Your task to perform on an android device: Open Youtube and go to "Your channel" Image 0: 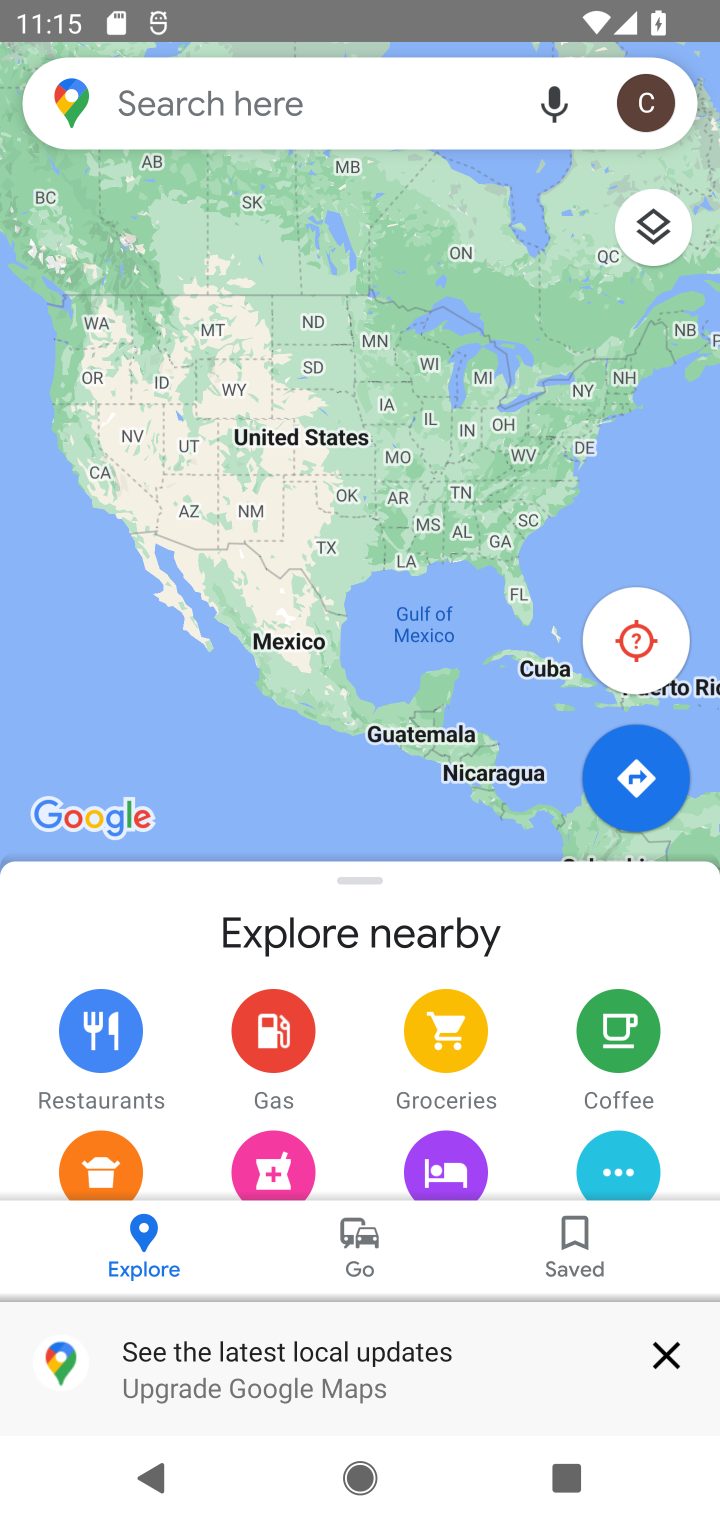
Step 0: press home button
Your task to perform on an android device: Open Youtube and go to "Your channel" Image 1: 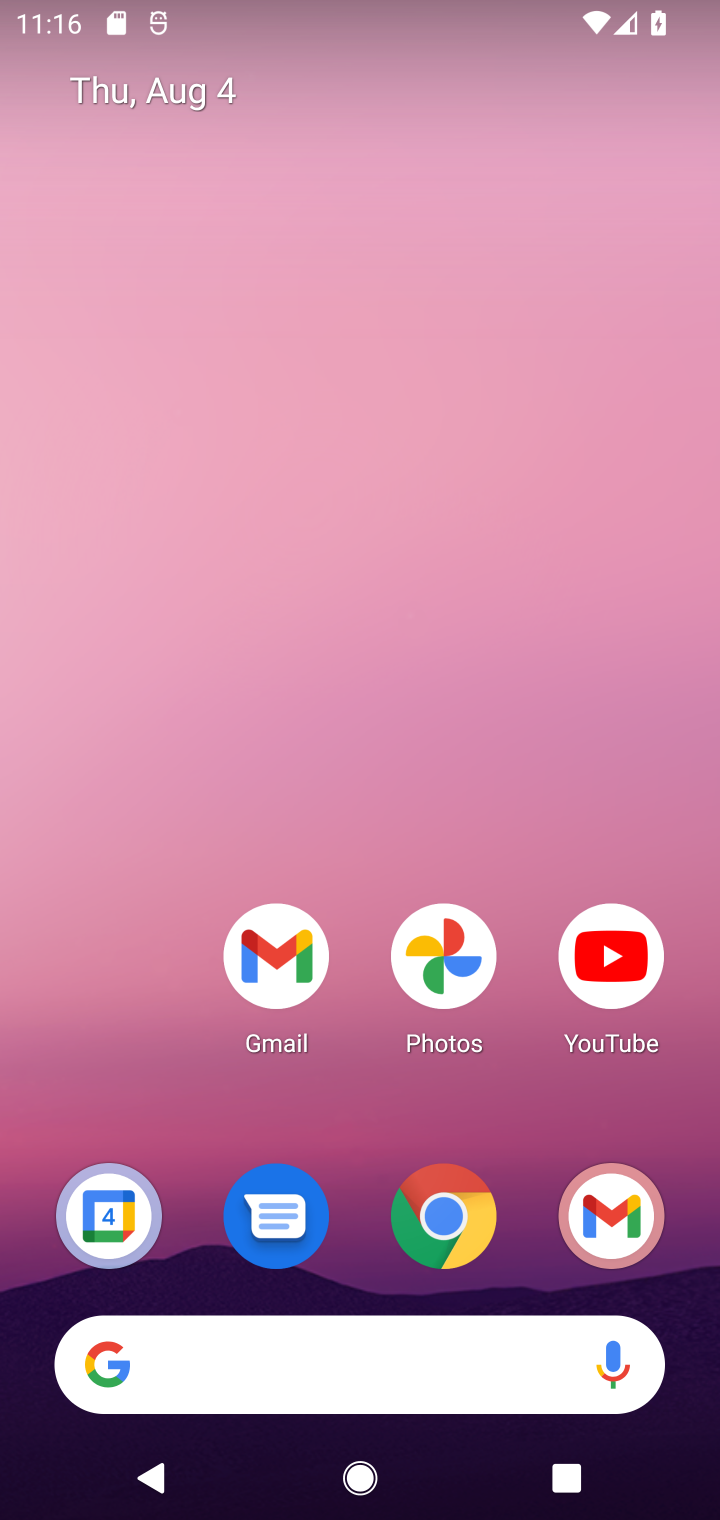
Step 1: click (610, 950)
Your task to perform on an android device: Open Youtube and go to "Your channel" Image 2: 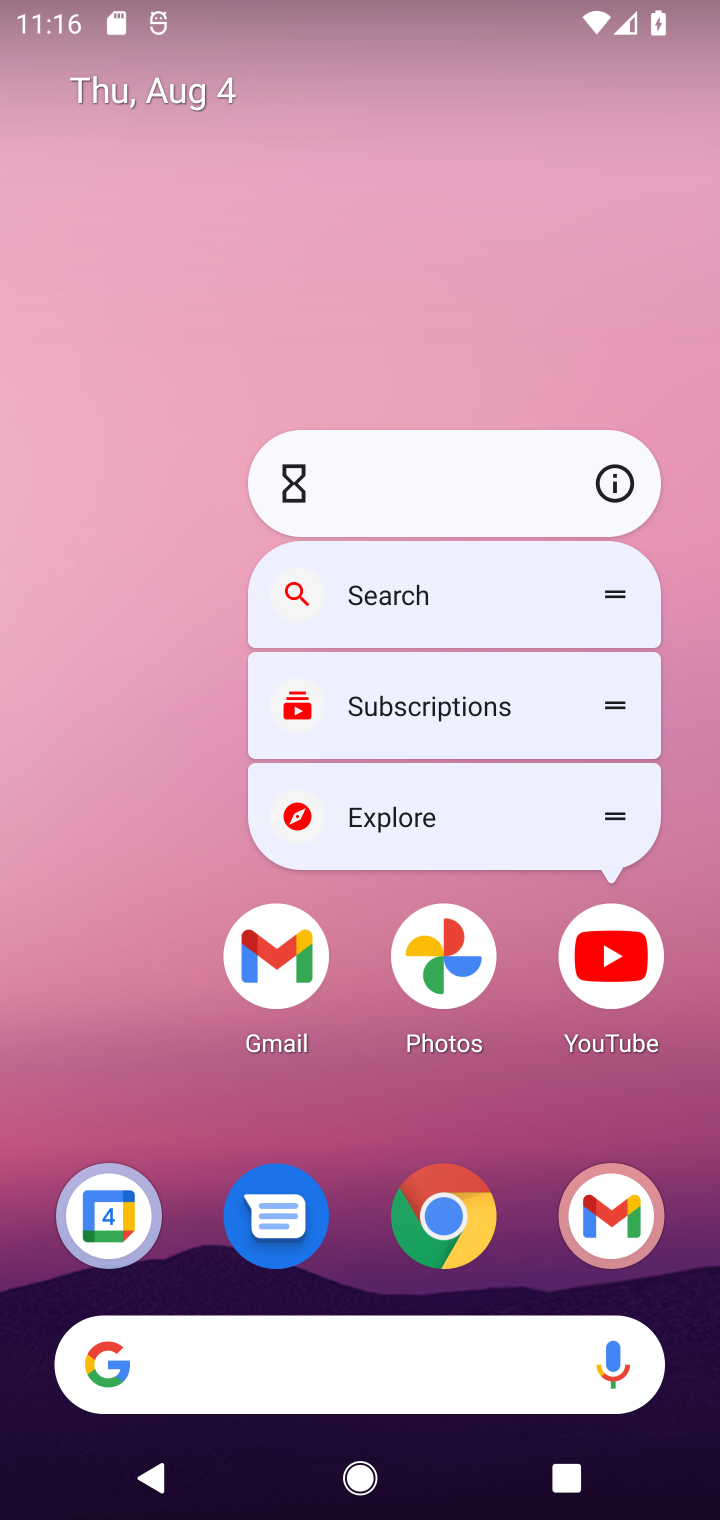
Step 2: click (610, 950)
Your task to perform on an android device: Open Youtube and go to "Your channel" Image 3: 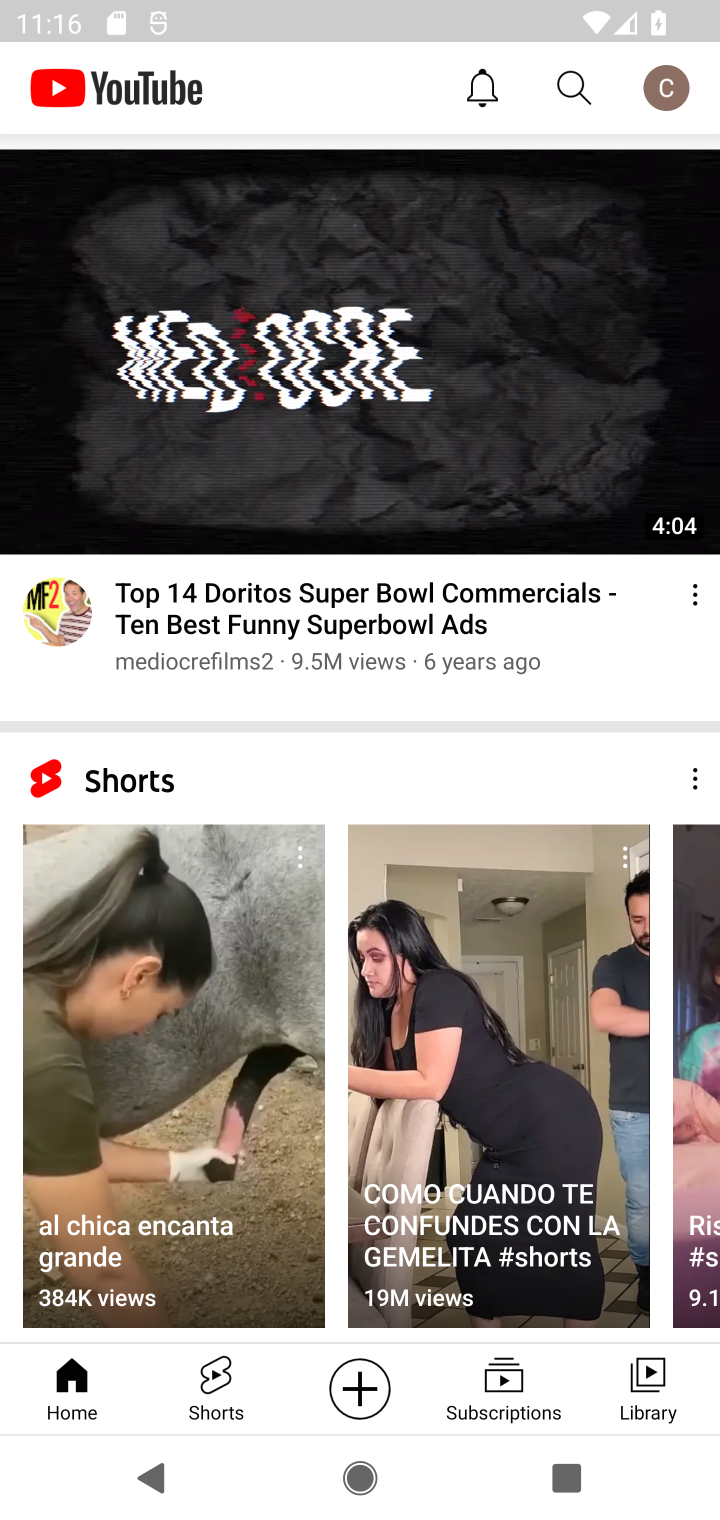
Step 3: click (655, 91)
Your task to perform on an android device: Open Youtube and go to "Your channel" Image 4: 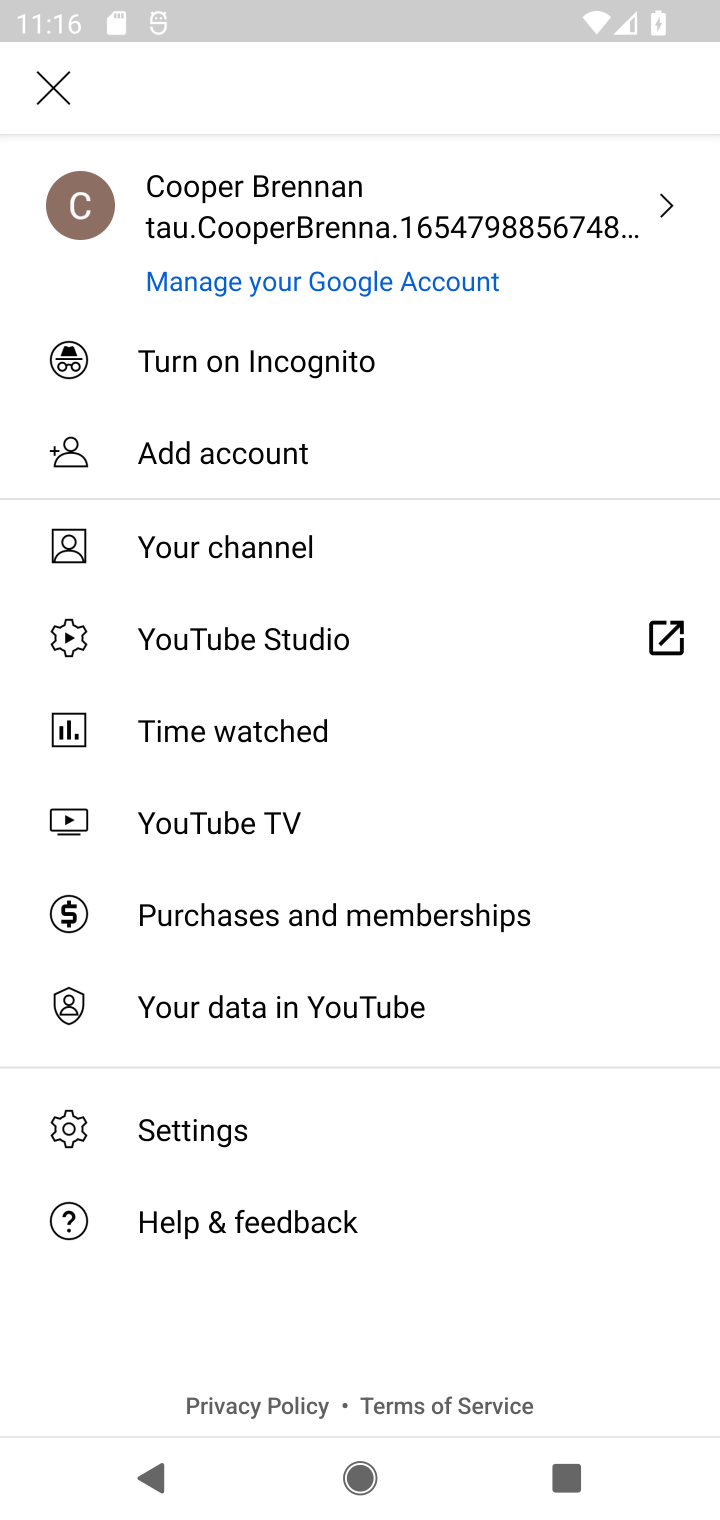
Step 4: click (286, 550)
Your task to perform on an android device: Open Youtube and go to "Your channel" Image 5: 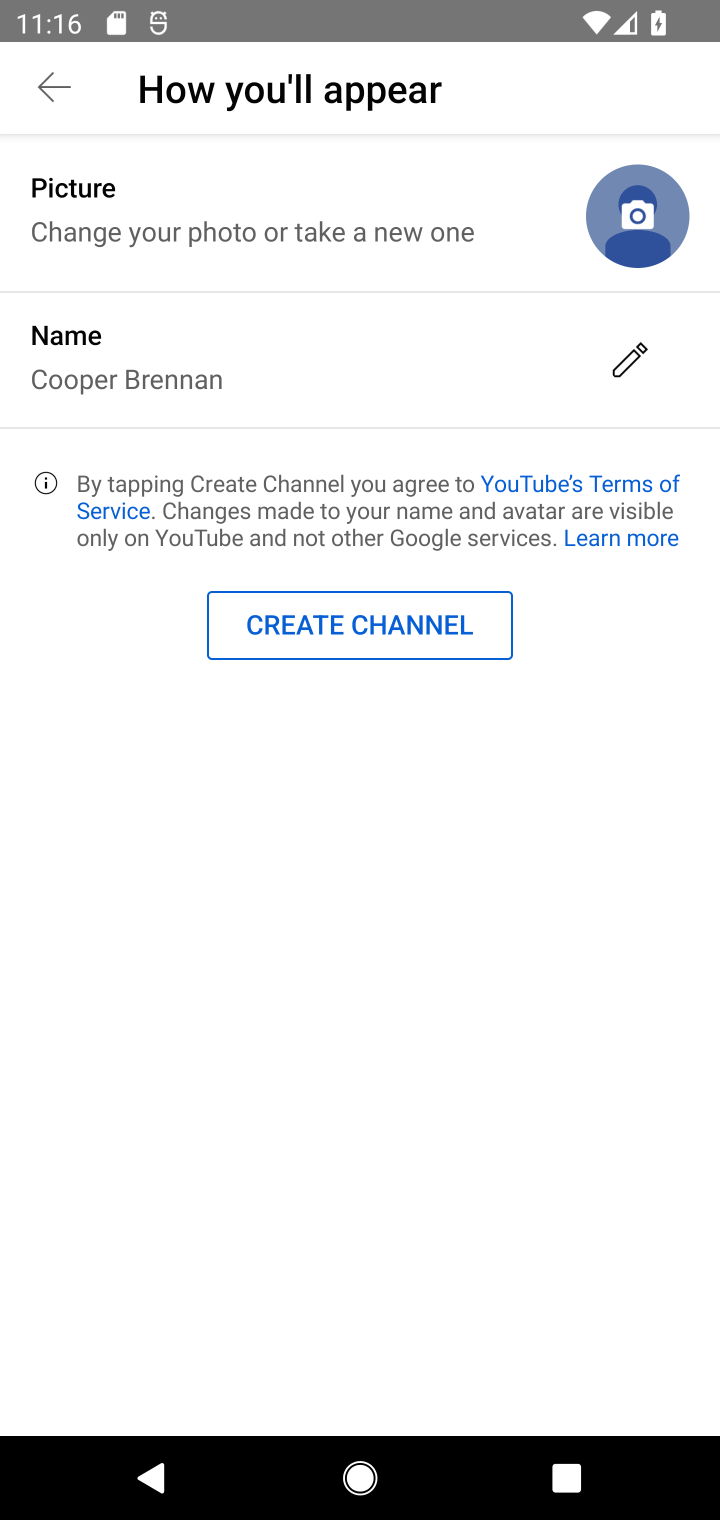
Step 5: task complete